Your task to perform on an android device: Open location settings Image 0: 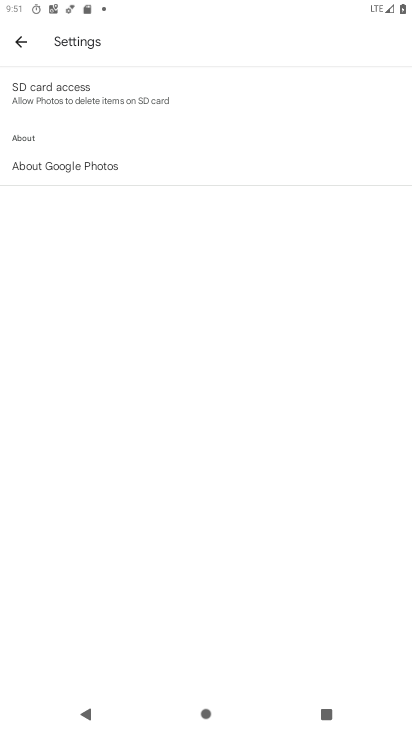
Step 0: press home button
Your task to perform on an android device: Open location settings Image 1: 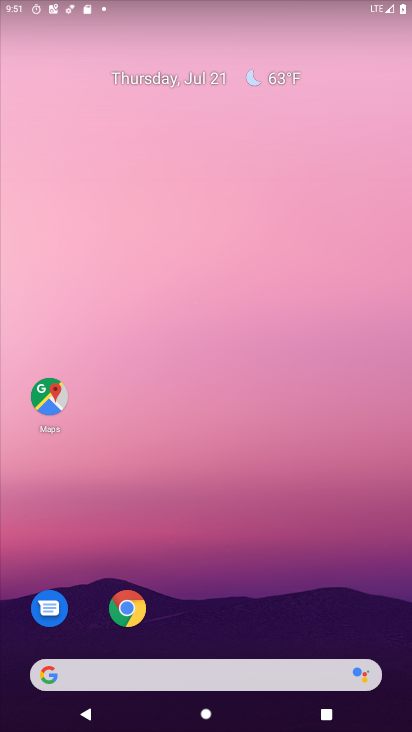
Step 1: drag from (197, 569) to (354, 60)
Your task to perform on an android device: Open location settings Image 2: 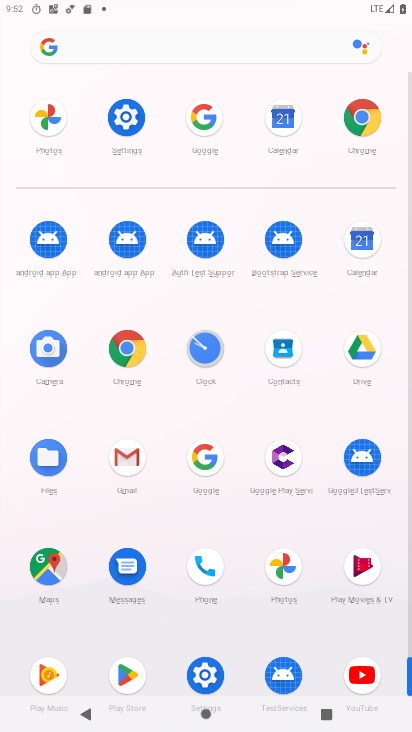
Step 2: drag from (244, 477) to (218, 160)
Your task to perform on an android device: Open location settings Image 3: 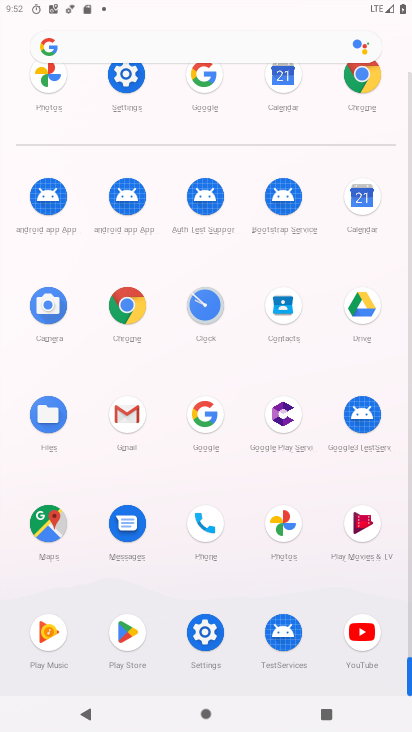
Step 3: click (211, 645)
Your task to perform on an android device: Open location settings Image 4: 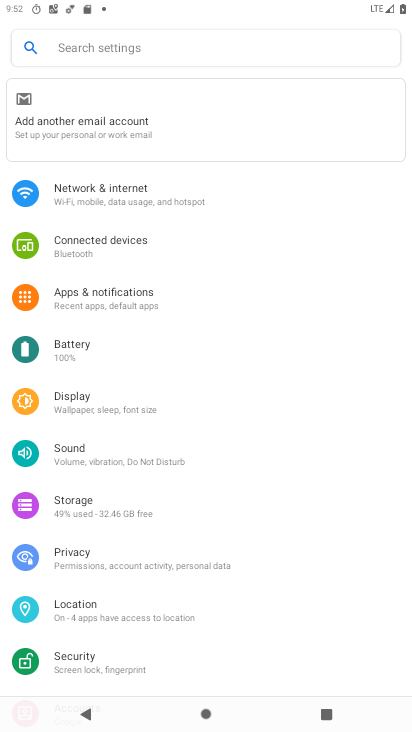
Step 4: click (120, 615)
Your task to perform on an android device: Open location settings Image 5: 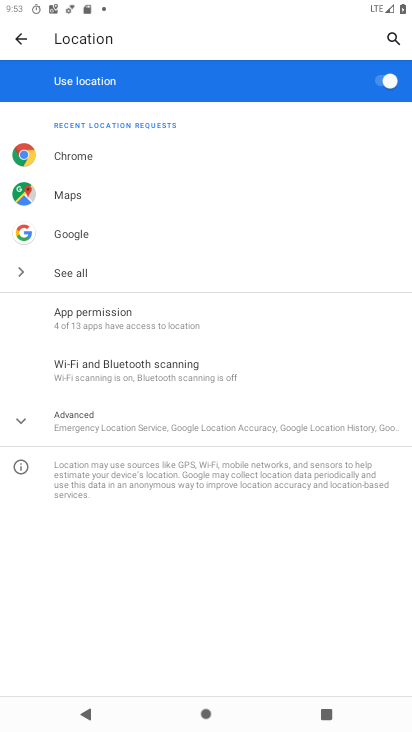
Step 5: task complete